Your task to perform on an android device: allow notifications from all sites in the chrome app Image 0: 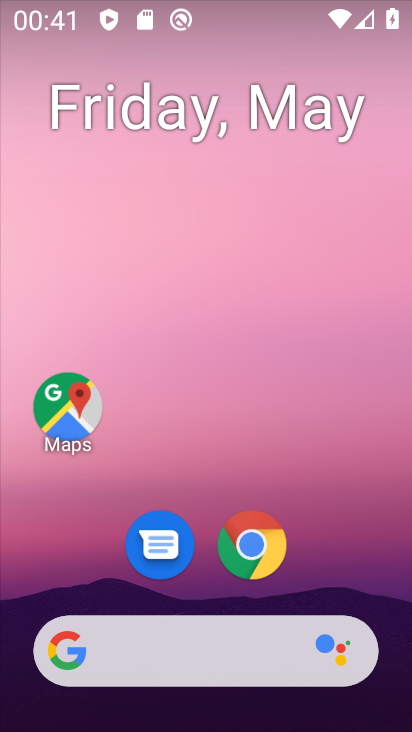
Step 0: click (248, 535)
Your task to perform on an android device: allow notifications from all sites in the chrome app Image 1: 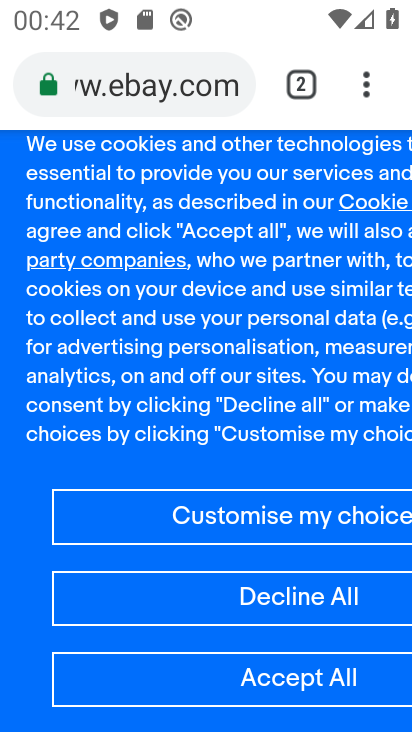
Step 1: click (362, 98)
Your task to perform on an android device: allow notifications from all sites in the chrome app Image 2: 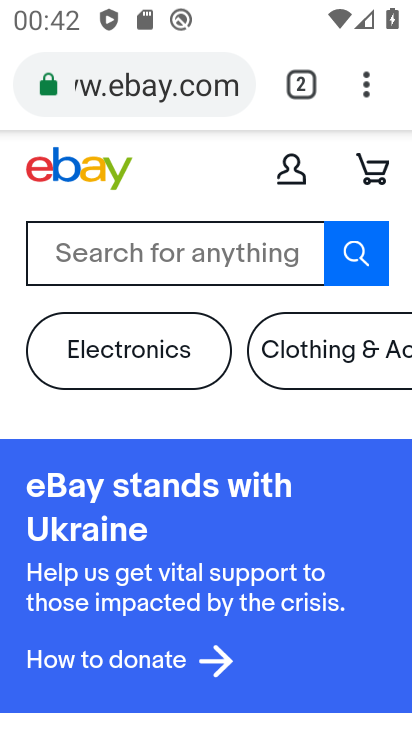
Step 2: click (365, 80)
Your task to perform on an android device: allow notifications from all sites in the chrome app Image 3: 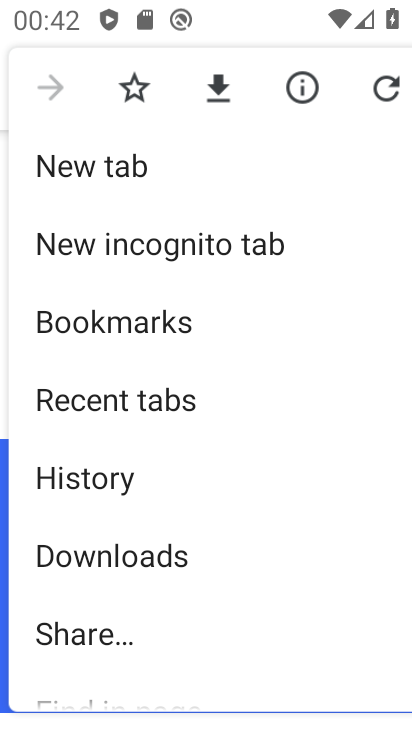
Step 3: drag from (180, 584) to (182, 190)
Your task to perform on an android device: allow notifications from all sites in the chrome app Image 4: 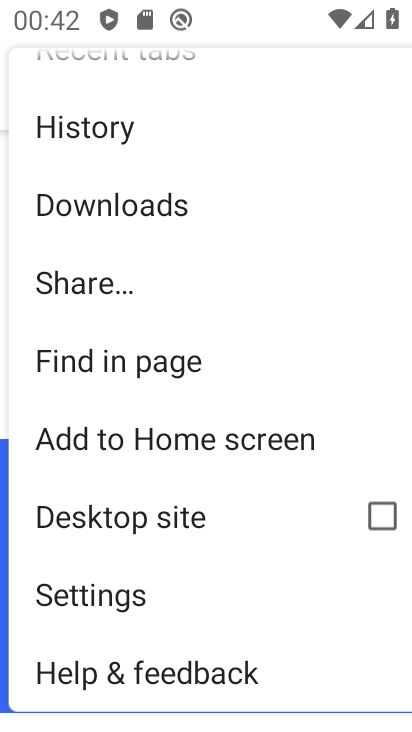
Step 4: click (130, 588)
Your task to perform on an android device: allow notifications from all sites in the chrome app Image 5: 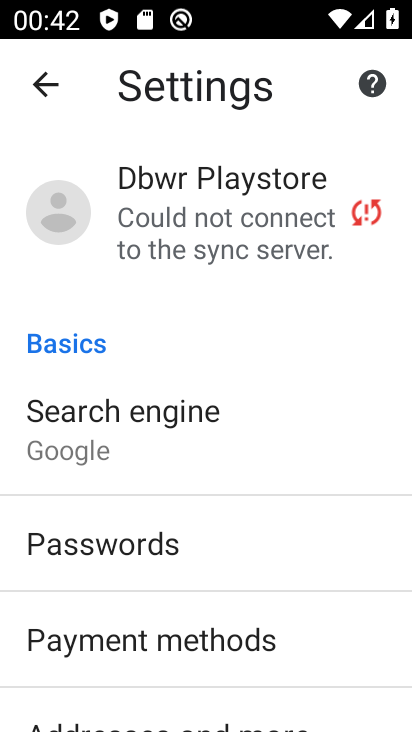
Step 5: drag from (149, 649) to (168, 281)
Your task to perform on an android device: allow notifications from all sites in the chrome app Image 6: 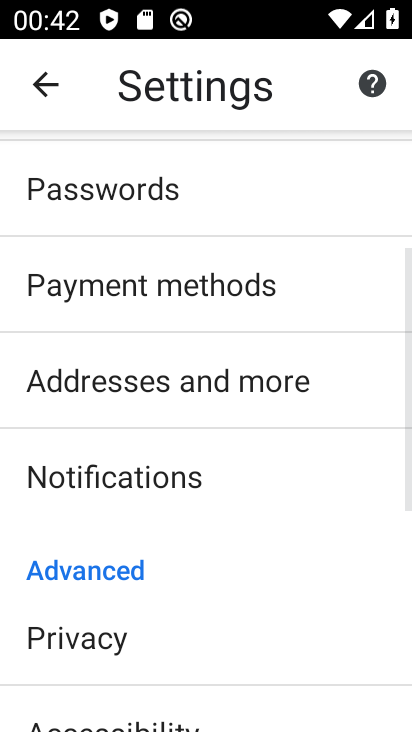
Step 6: drag from (167, 652) to (169, 245)
Your task to perform on an android device: allow notifications from all sites in the chrome app Image 7: 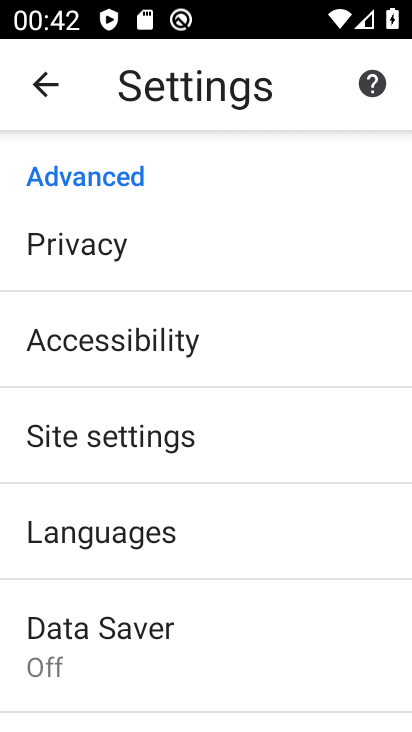
Step 7: click (101, 422)
Your task to perform on an android device: allow notifications from all sites in the chrome app Image 8: 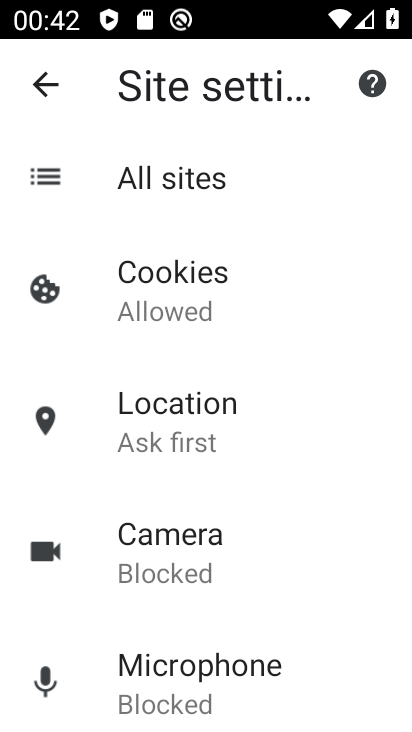
Step 8: click (206, 176)
Your task to perform on an android device: allow notifications from all sites in the chrome app Image 9: 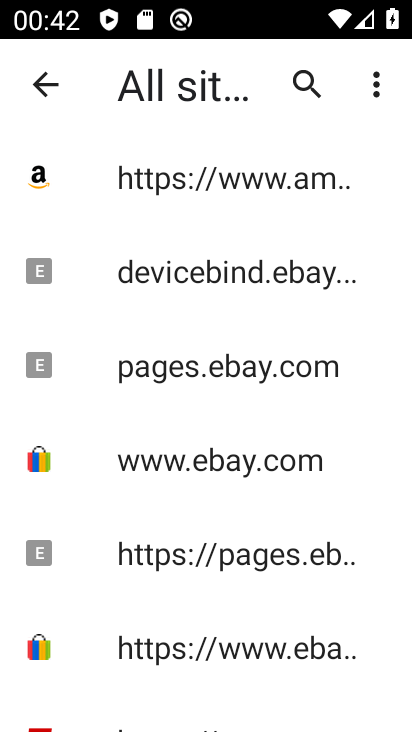
Step 9: drag from (180, 597) to (200, 358)
Your task to perform on an android device: allow notifications from all sites in the chrome app Image 10: 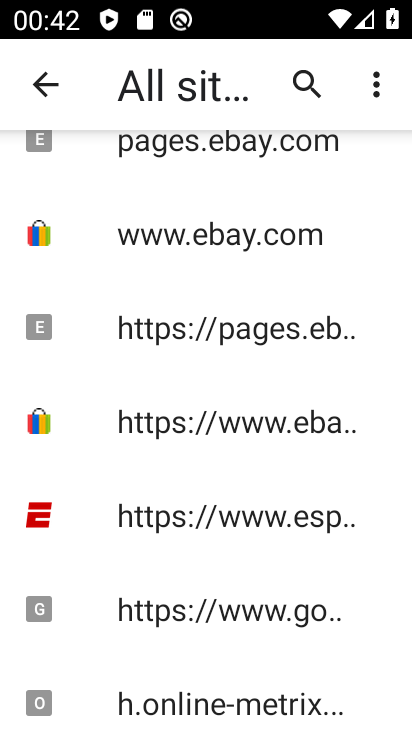
Step 10: drag from (188, 561) to (204, 415)
Your task to perform on an android device: allow notifications from all sites in the chrome app Image 11: 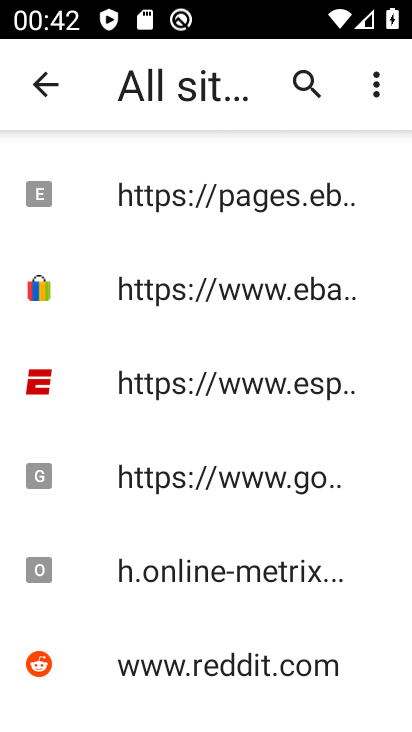
Step 11: click (216, 500)
Your task to perform on an android device: allow notifications from all sites in the chrome app Image 12: 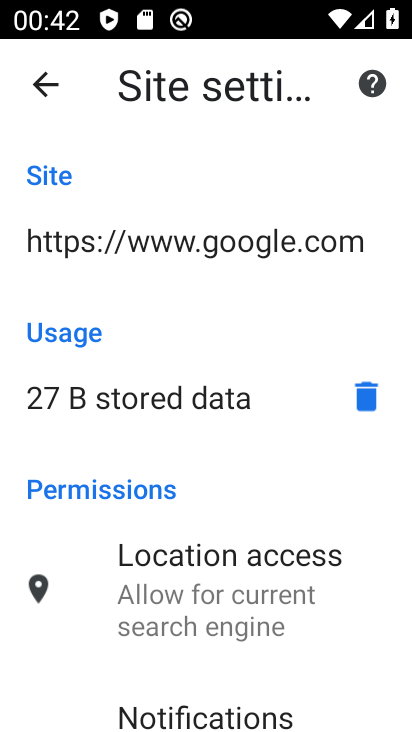
Step 12: click (184, 713)
Your task to perform on an android device: allow notifications from all sites in the chrome app Image 13: 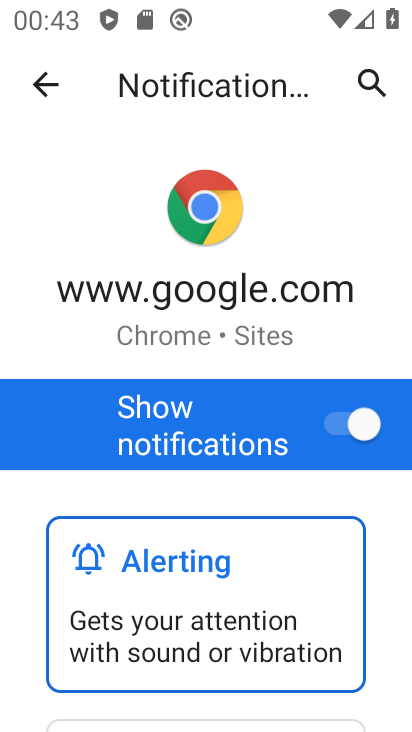
Step 13: task complete